Your task to perform on an android device: turn on airplane mode Image 0: 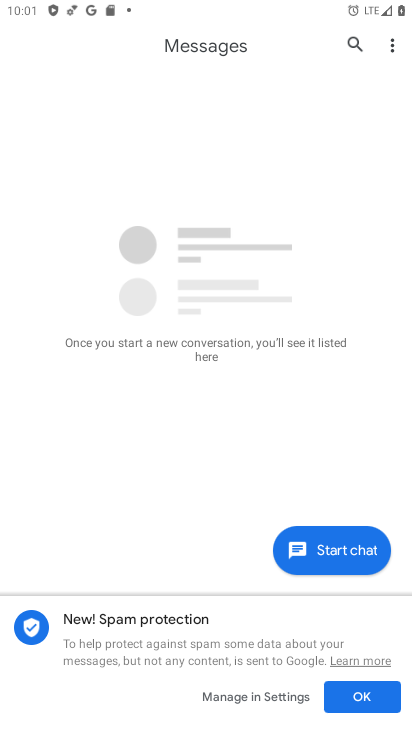
Step 0: press home button
Your task to perform on an android device: turn on airplane mode Image 1: 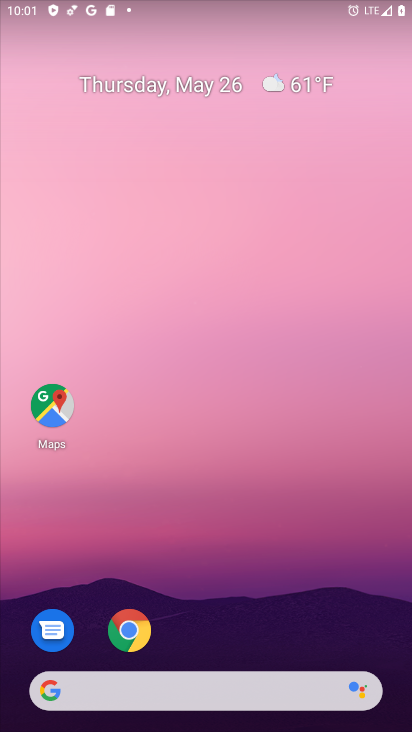
Step 1: drag from (222, 647) to (131, 159)
Your task to perform on an android device: turn on airplane mode Image 2: 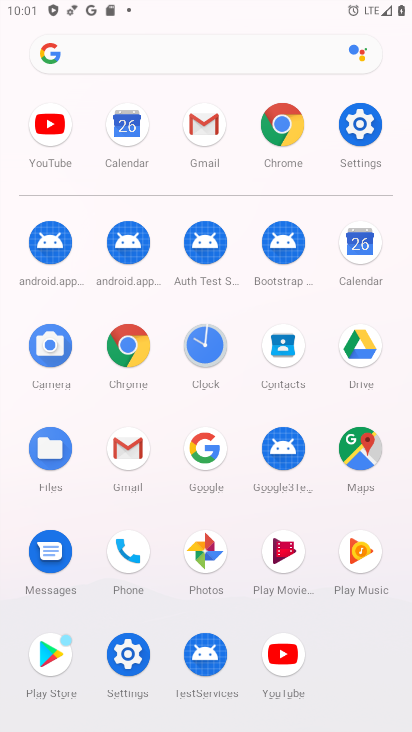
Step 2: click (356, 126)
Your task to perform on an android device: turn on airplane mode Image 3: 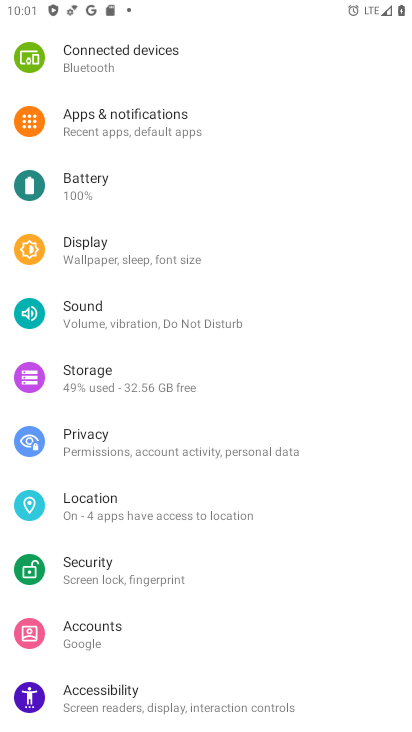
Step 3: drag from (356, 126) to (277, 447)
Your task to perform on an android device: turn on airplane mode Image 4: 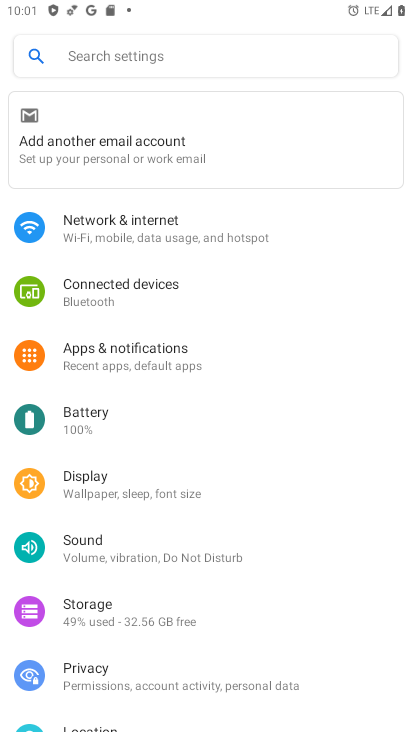
Step 4: click (138, 210)
Your task to perform on an android device: turn on airplane mode Image 5: 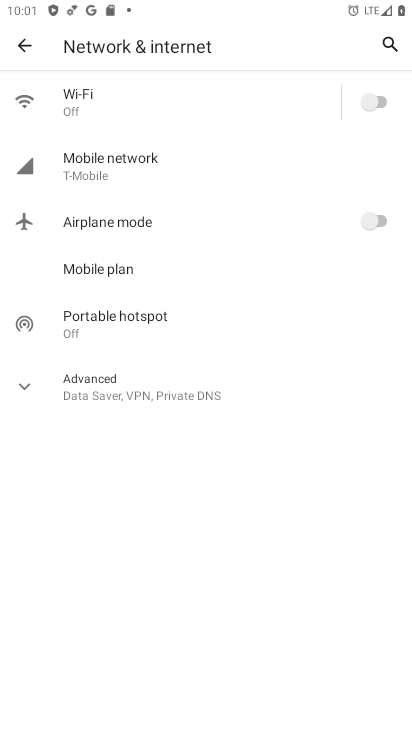
Step 5: click (364, 215)
Your task to perform on an android device: turn on airplane mode Image 6: 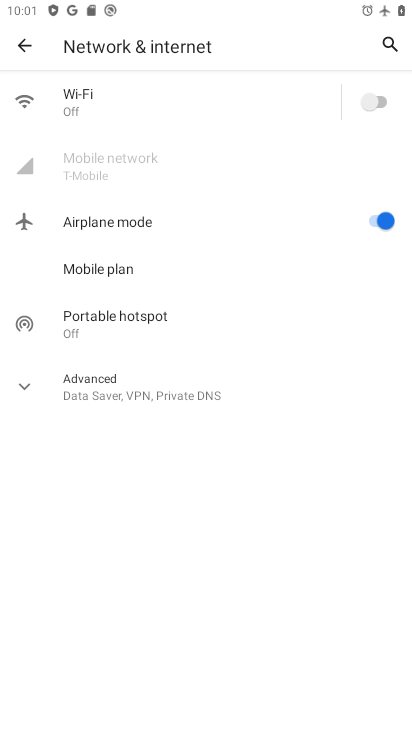
Step 6: task complete